Your task to perform on an android device: make emails show in primary in the gmail app Image 0: 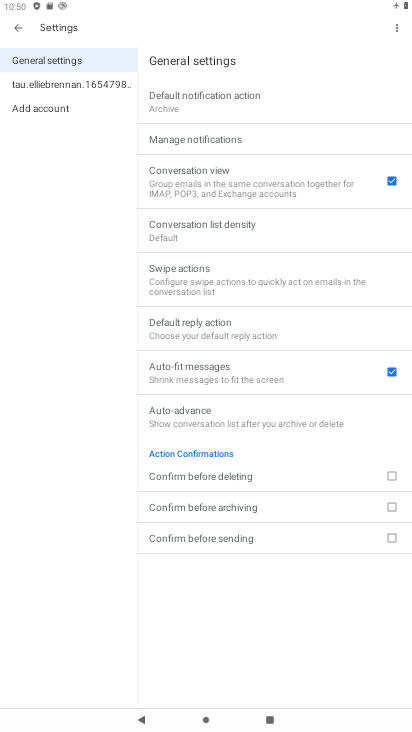
Step 0: press home button
Your task to perform on an android device: make emails show in primary in the gmail app Image 1: 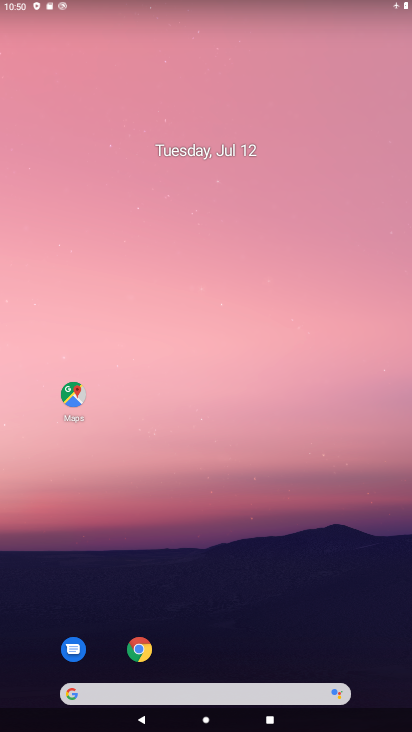
Step 1: drag from (394, 684) to (333, 69)
Your task to perform on an android device: make emails show in primary in the gmail app Image 2: 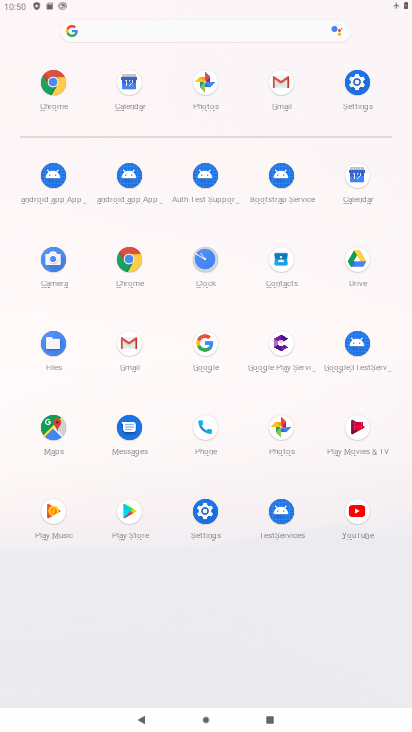
Step 2: click (128, 344)
Your task to perform on an android device: make emails show in primary in the gmail app Image 3: 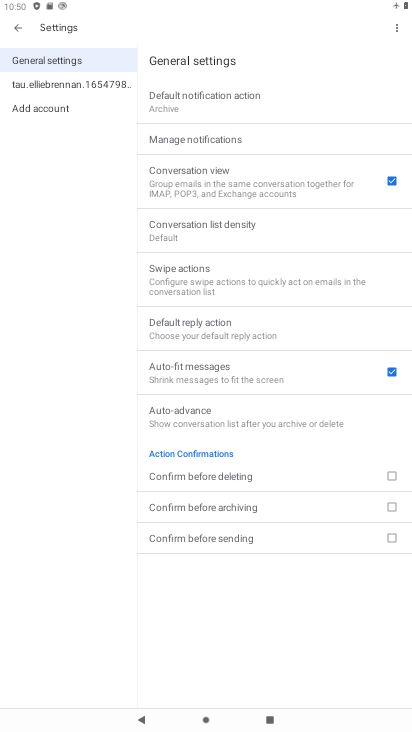
Step 3: click (76, 86)
Your task to perform on an android device: make emails show in primary in the gmail app Image 4: 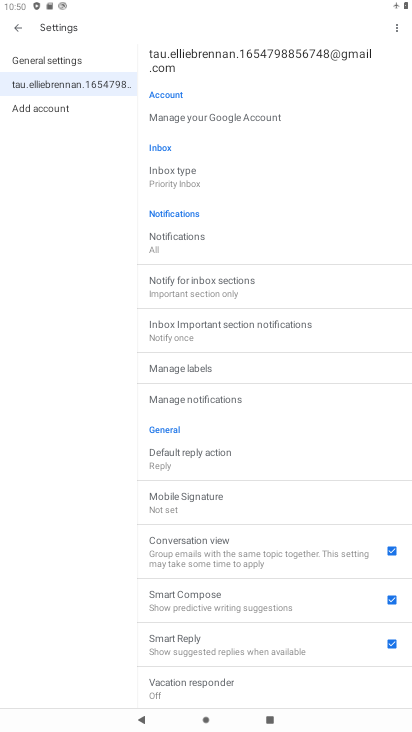
Step 4: click (170, 177)
Your task to perform on an android device: make emails show in primary in the gmail app Image 5: 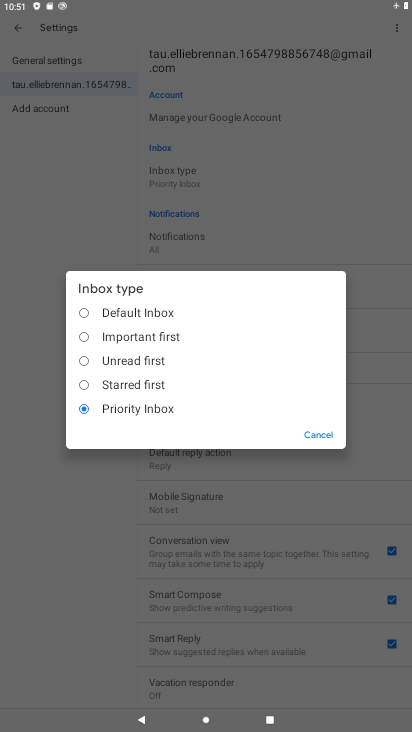
Step 5: click (84, 310)
Your task to perform on an android device: make emails show in primary in the gmail app Image 6: 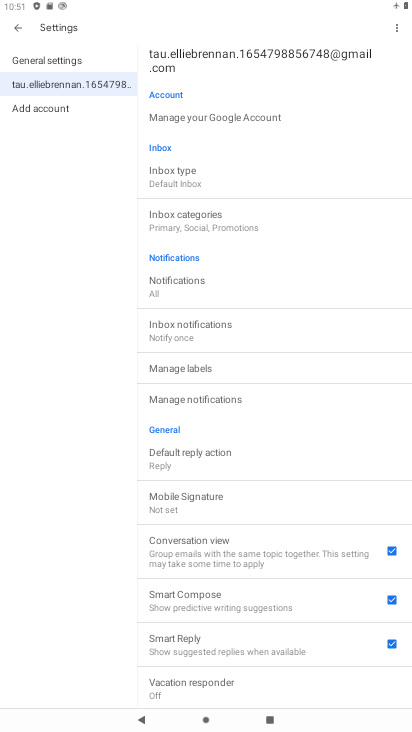
Step 6: click (187, 213)
Your task to perform on an android device: make emails show in primary in the gmail app Image 7: 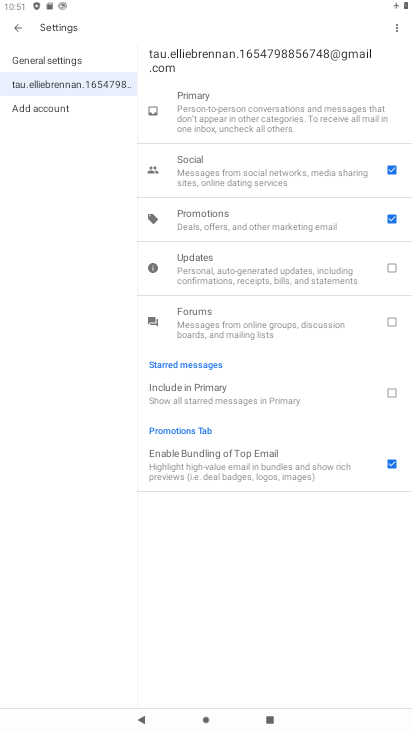
Step 7: click (388, 166)
Your task to perform on an android device: make emails show in primary in the gmail app Image 8: 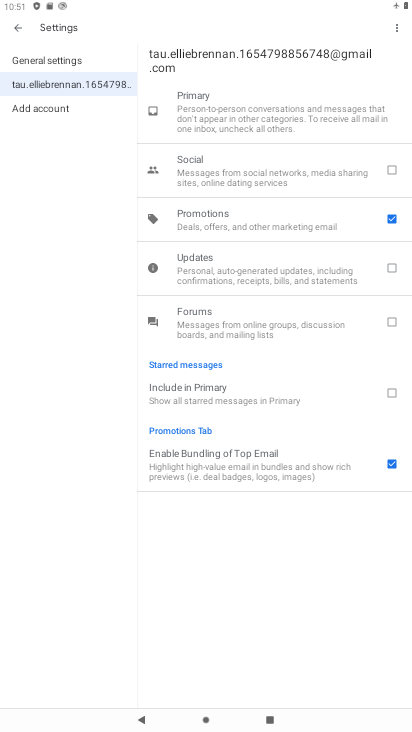
Step 8: click (390, 218)
Your task to perform on an android device: make emails show in primary in the gmail app Image 9: 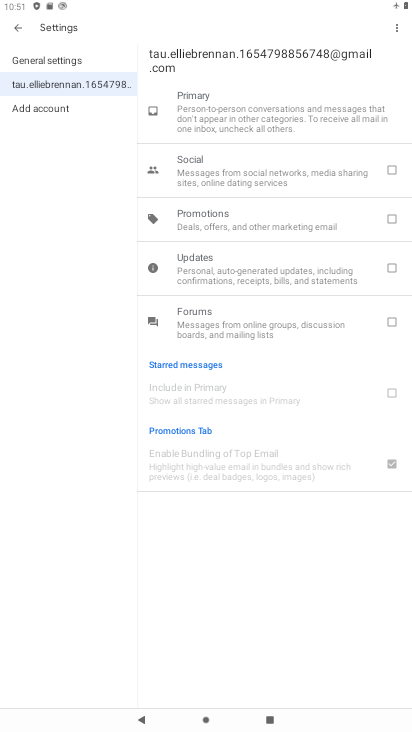
Step 9: task complete